Your task to perform on an android device: turn vacation reply on in the gmail app Image 0: 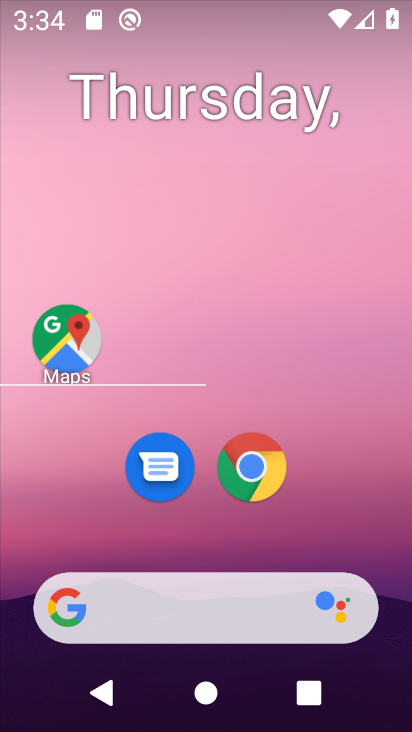
Step 0: click (364, 410)
Your task to perform on an android device: turn vacation reply on in the gmail app Image 1: 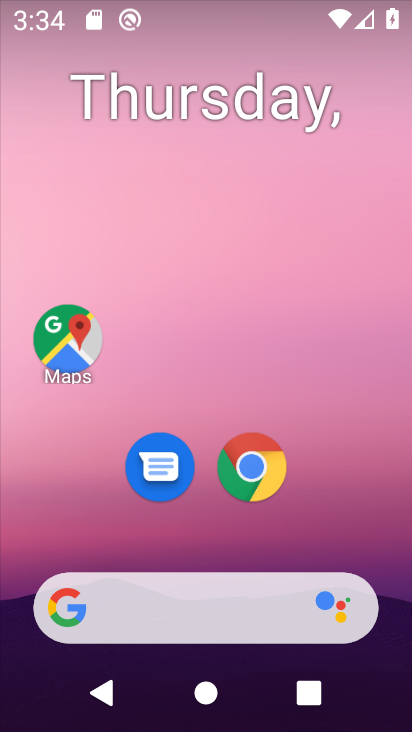
Step 1: drag from (232, 552) to (300, 0)
Your task to perform on an android device: turn vacation reply on in the gmail app Image 2: 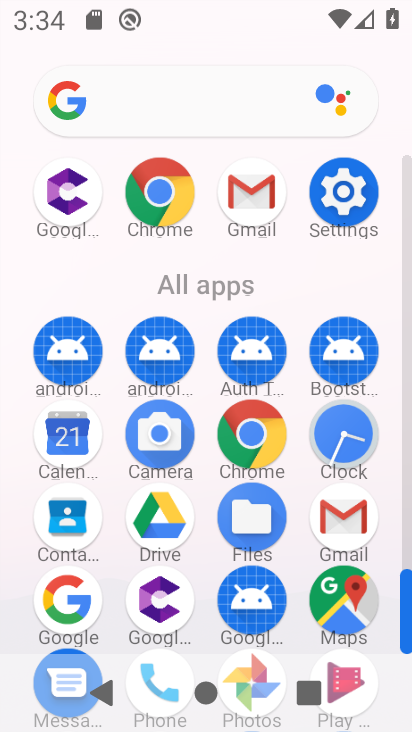
Step 2: click (340, 532)
Your task to perform on an android device: turn vacation reply on in the gmail app Image 3: 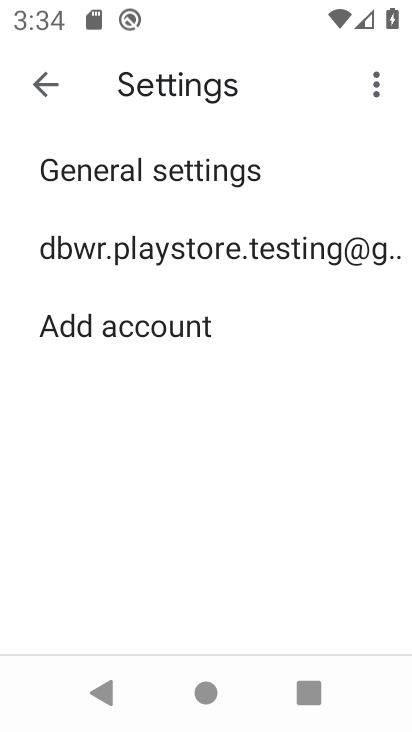
Step 3: click (218, 258)
Your task to perform on an android device: turn vacation reply on in the gmail app Image 4: 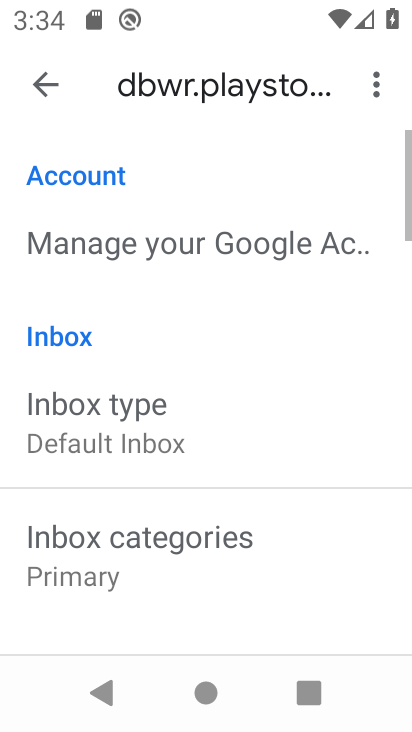
Step 4: drag from (214, 591) to (284, 74)
Your task to perform on an android device: turn vacation reply on in the gmail app Image 5: 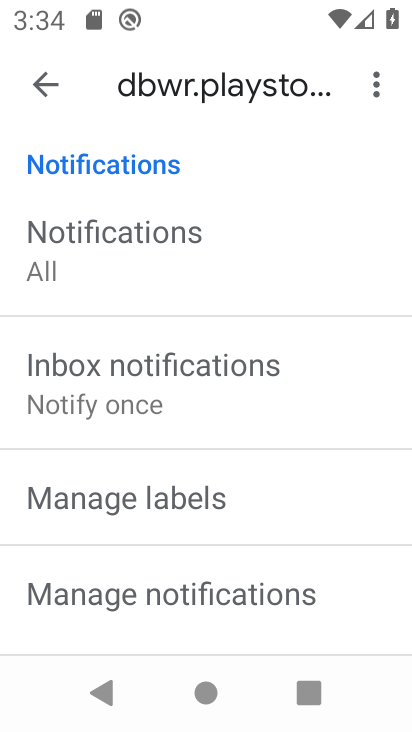
Step 5: drag from (217, 542) to (277, 11)
Your task to perform on an android device: turn vacation reply on in the gmail app Image 6: 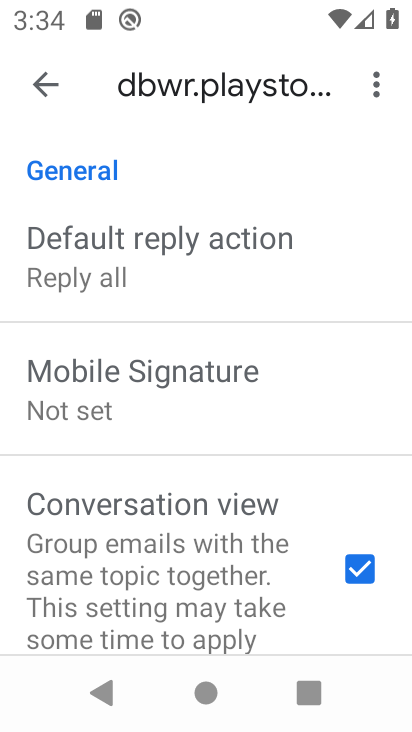
Step 6: drag from (181, 494) to (269, 52)
Your task to perform on an android device: turn vacation reply on in the gmail app Image 7: 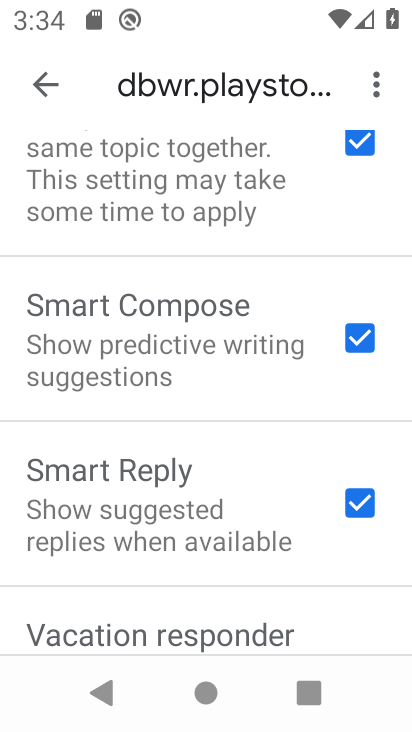
Step 7: drag from (208, 511) to (273, 236)
Your task to perform on an android device: turn vacation reply on in the gmail app Image 8: 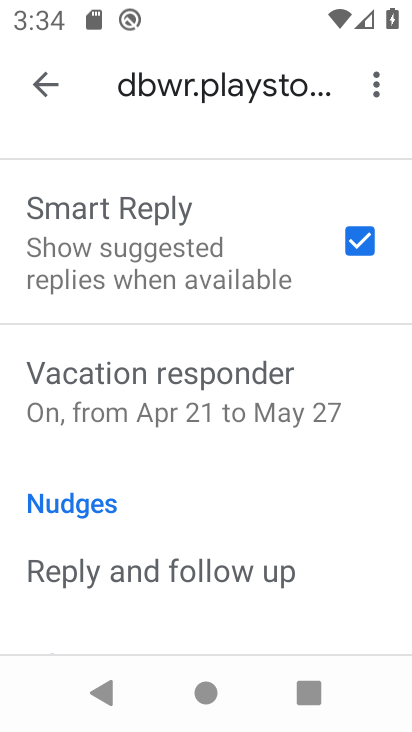
Step 8: click (214, 408)
Your task to perform on an android device: turn vacation reply on in the gmail app Image 9: 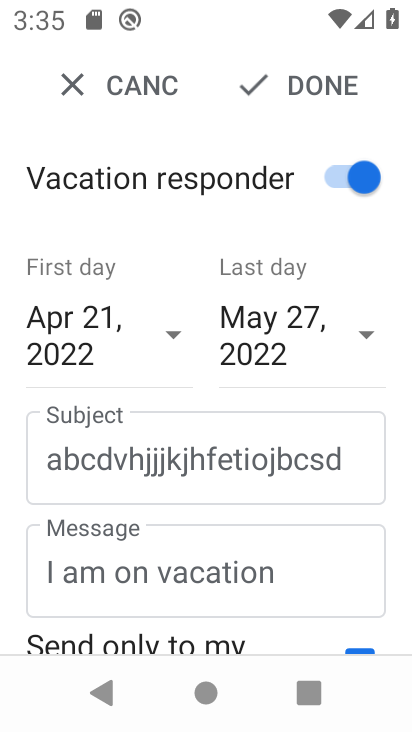
Step 9: task complete